Your task to perform on an android device: Open Reddit.com Image 0: 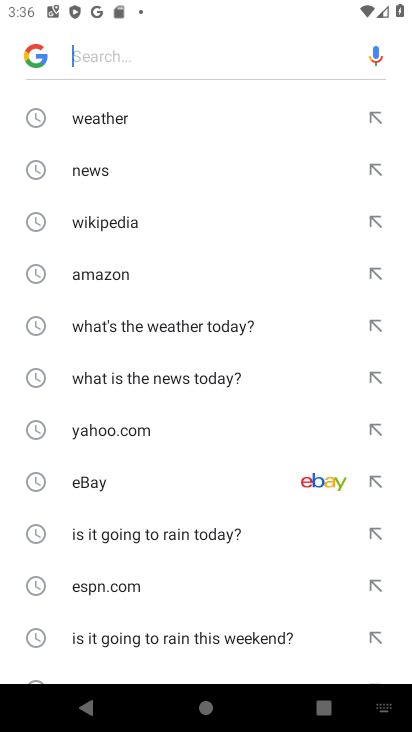
Step 0: press home button
Your task to perform on an android device: Open Reddit.com Image 1: 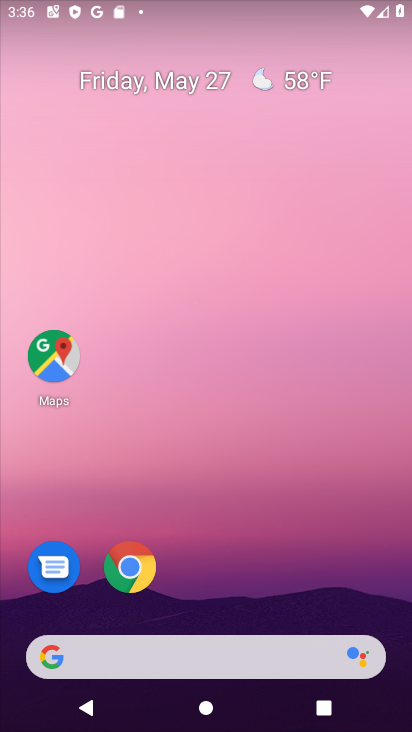
Step 1: drag from (213, 147) to (207, 0)
Your task to perform on an android device: Open Reddit.com Image 2: 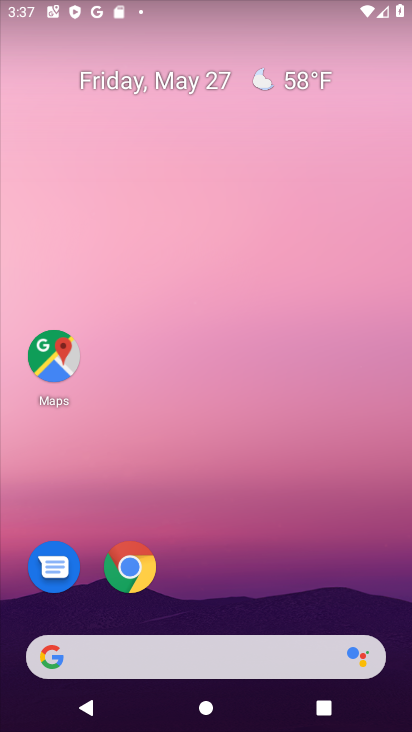
Step 2: click (127, 561)
Your task to perform on an android device: Open Reddit.com Image 3: 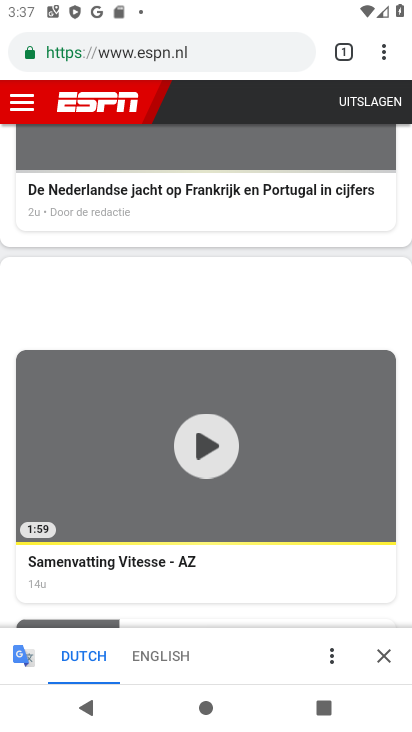
Step 3: click (346, 51)
Your task to perform on an android device: Open Reddit.com Image 4: 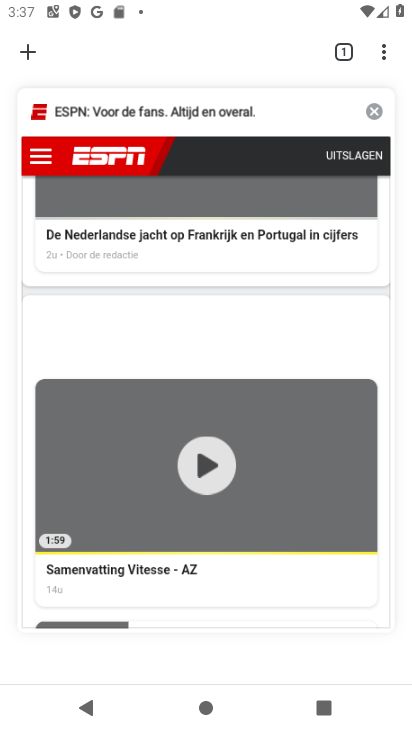
Step 4: click (370, 109)
Your task to perform on an android device: Open Reddit.com Image 5: 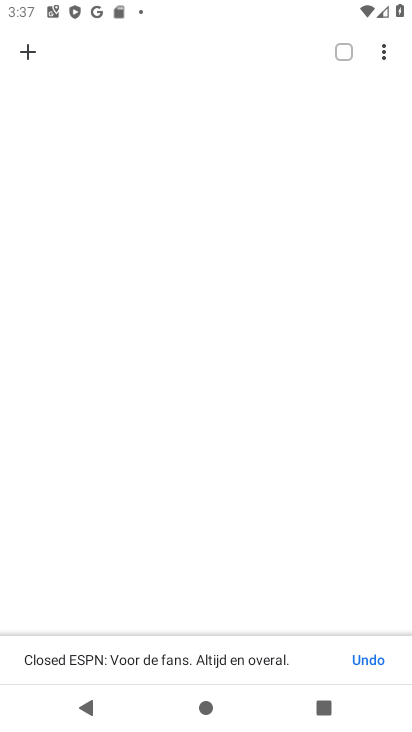
Step 5: click (29, 51)
Your task to perform on an android device: Open Reddit.com Image 6: 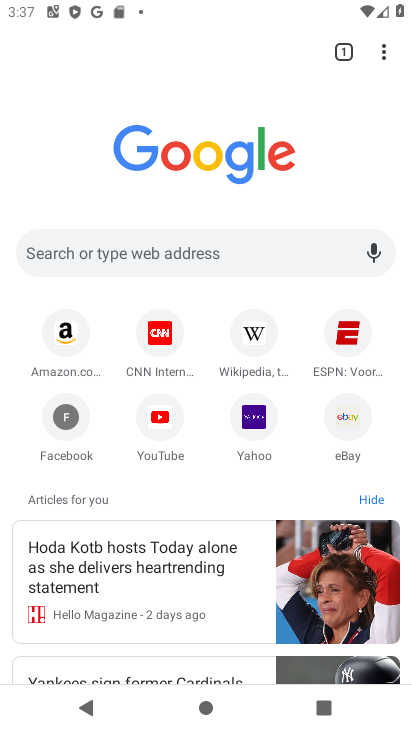
Step 6: click (93, 248)
Your task to perform on an android device: Open Reddit.com Image 7: 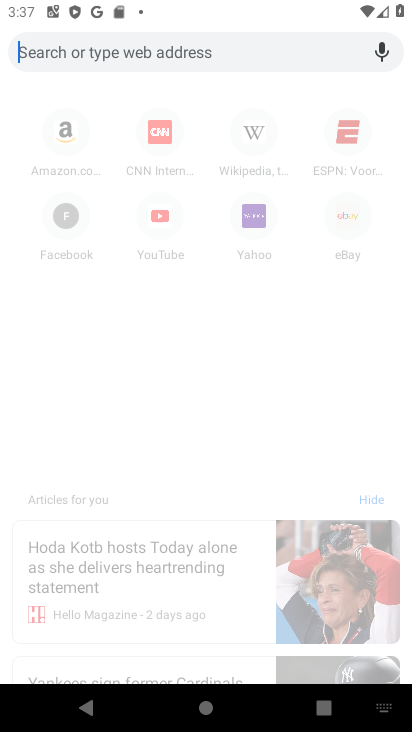
Step 7: type "reddit"
Your task to perform on an android device: Open Reddit.com Image 8: 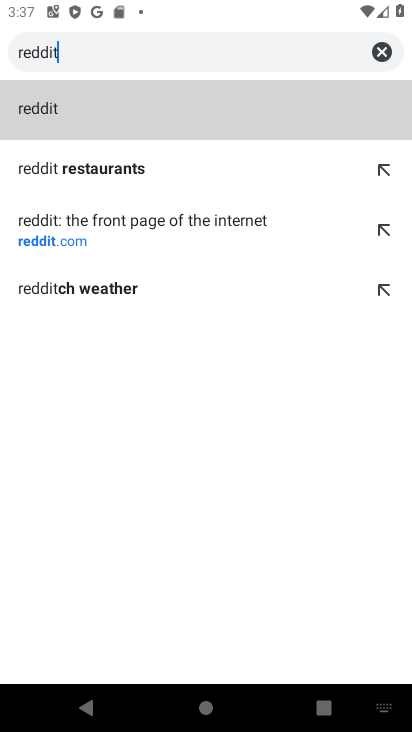
Step 8: click (108, 236)
Your task to perform on an android device: Open Reddit.com Image 9: 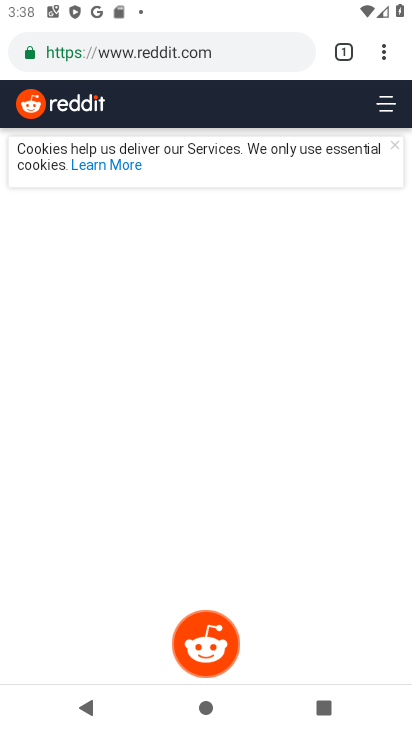
Step 9: task complete